Your task to perform on an android device: clear all cookies in the chrome app Image 0: 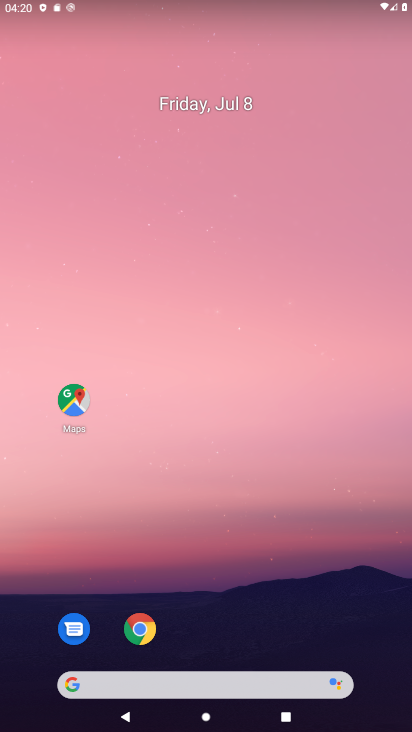
Step 0: click (140, 629)
Your task to perform on an android device: clear all cookies in the chrome app Image 1: 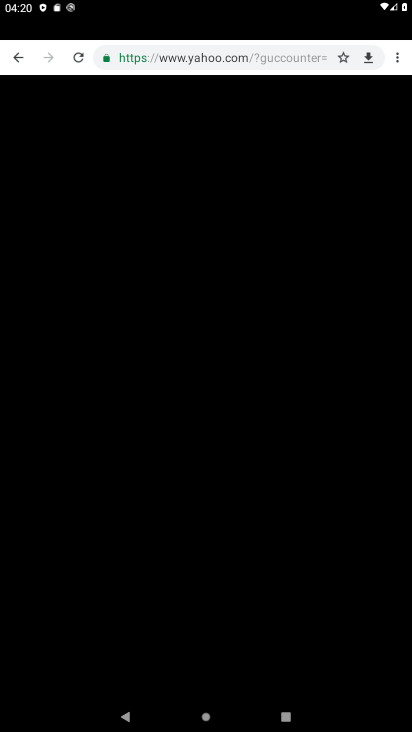
Step 1: click (398, 59)
Your task to perform on an android device: clear all cookies in the chrome app Image 2: 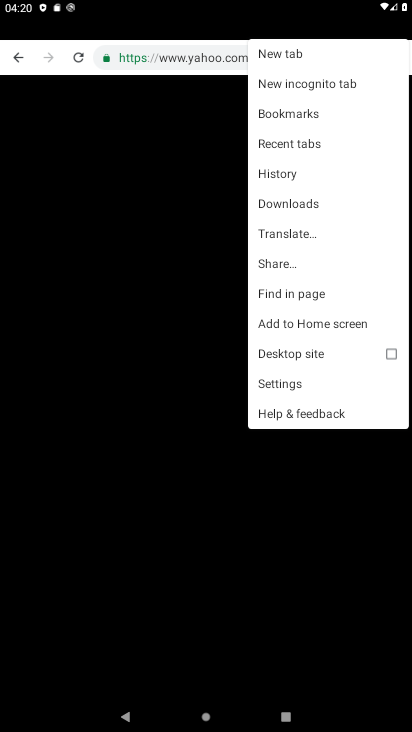
Step 2: click (277, 174)
Your task to perform on an android device: clear all cookies in the chrome app Image 3: 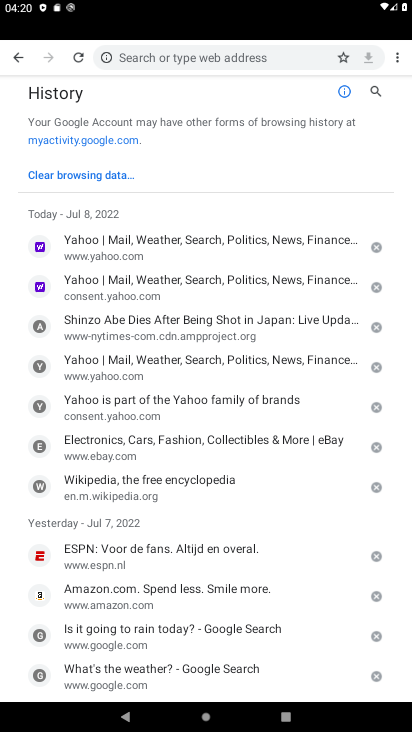
Step 3: click (92, 175)
Your task to perform on an android device: clear all cookies in the chrome app Image 4: 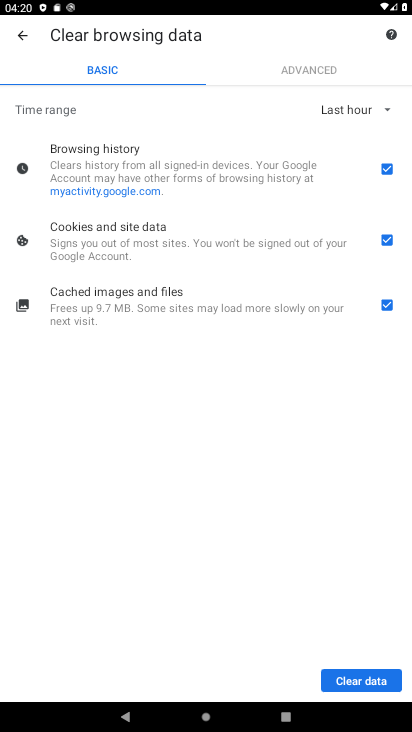
Step 4: click (389, 235)
Your task to perform on an android device: clear all cookies in the chrome app Image 5: 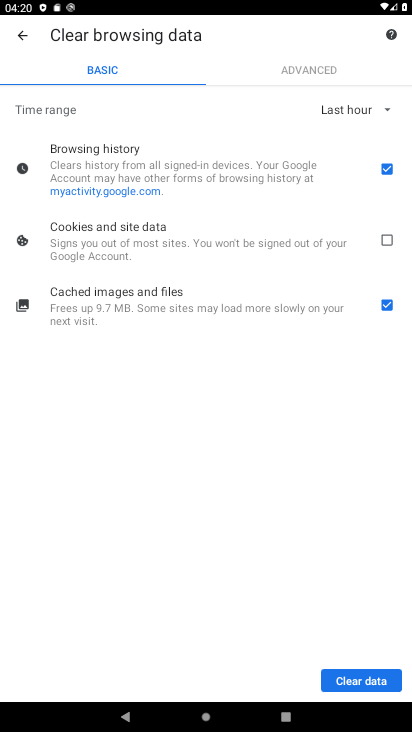
Step 5: click (388, 306)
Your task to perform on an android device: clear all cookies in the chrome app Image 6: 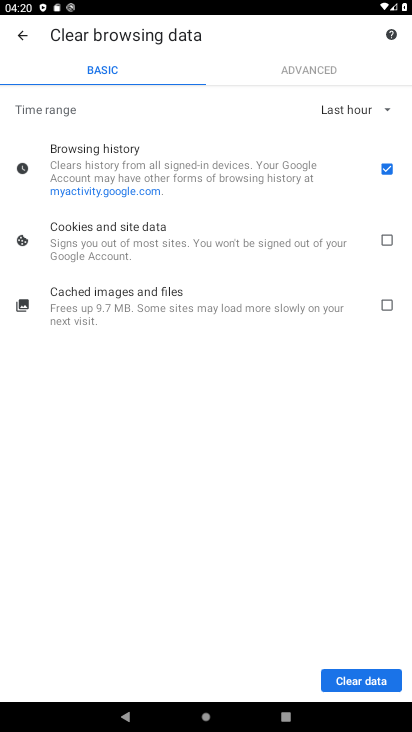
Step 6: click (357, 681)
Your task to perform on an android device: clear all cookies in the chrome app Image 7: 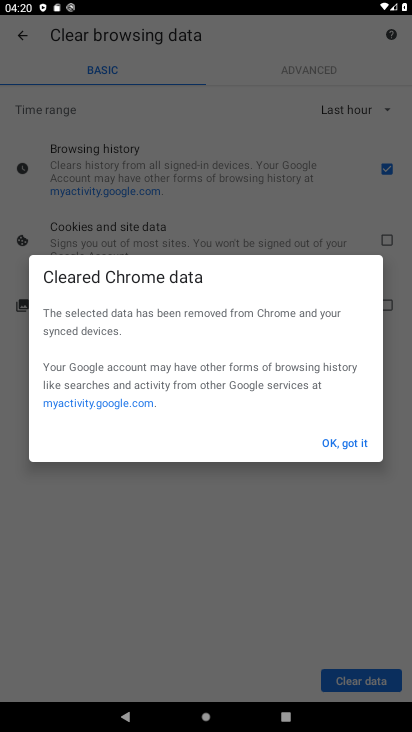
Step 7: click (345, 435)
Your task to perform on an android device: clear all cookies in the chrome app Image 8: 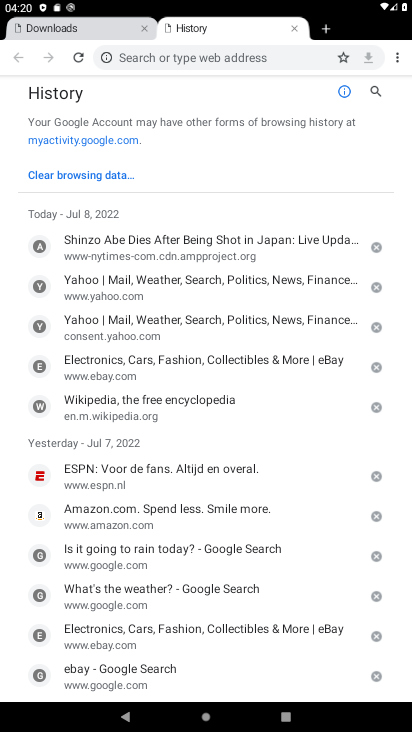
Step 8: task complete